Your task to perform on an android device: turn off data saver in the chrome app Image 0: 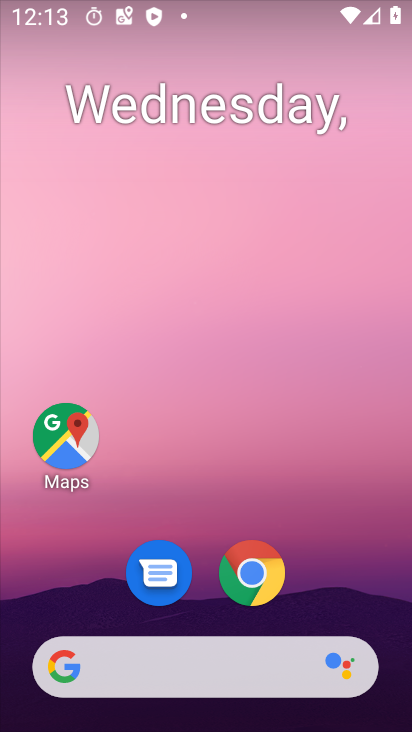
Step 0: drag from (195, 243) to (133, 69)
Your task to perform on an android device: turn off data saver in the chrome app Image 1: 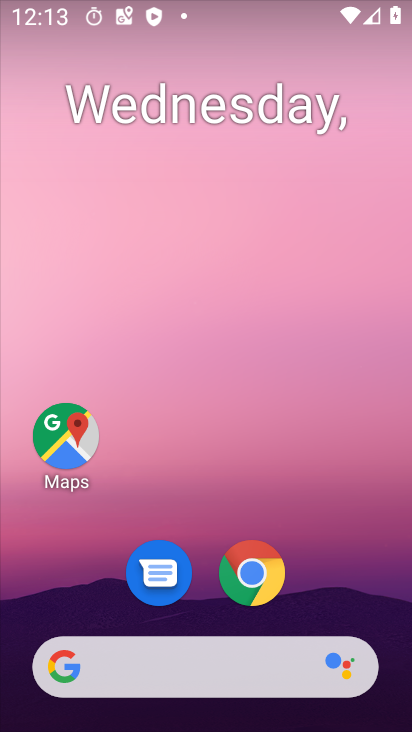
Step 1: drag from (314, 547) to (129, 70)
Your task to perform on an android device: turn off data saver in the chrome app Image 2: 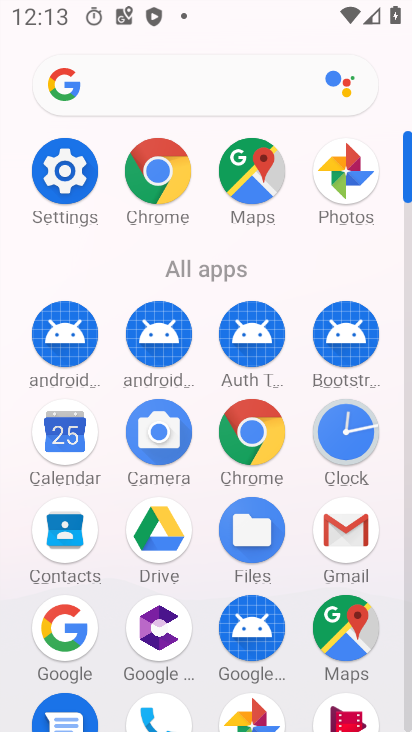
Step 2: click (157, 169)
Your task to perform on an android device: turn off data saver in the chrome app Image 3: 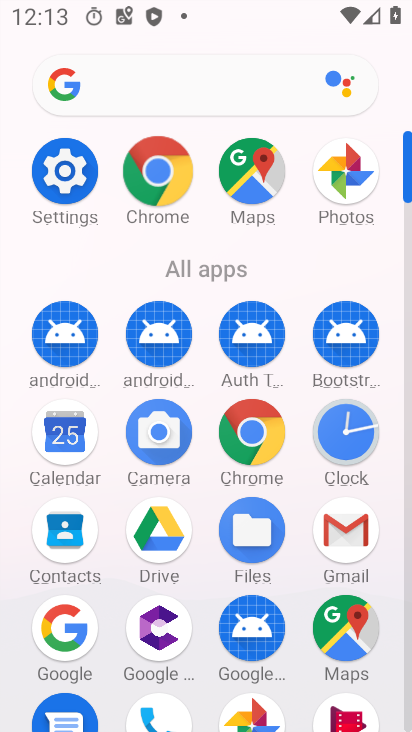
Step 3: click (159, 166)
Your task to perform on an android device: turn off data saver in the chrome app Image 4: 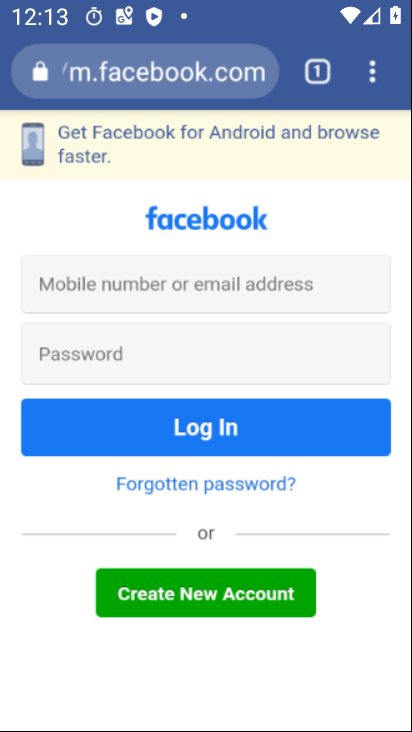
Step 4: click (162, 162)
Your task to perform on an android device: turn off data saver in the chrome app Image 5: 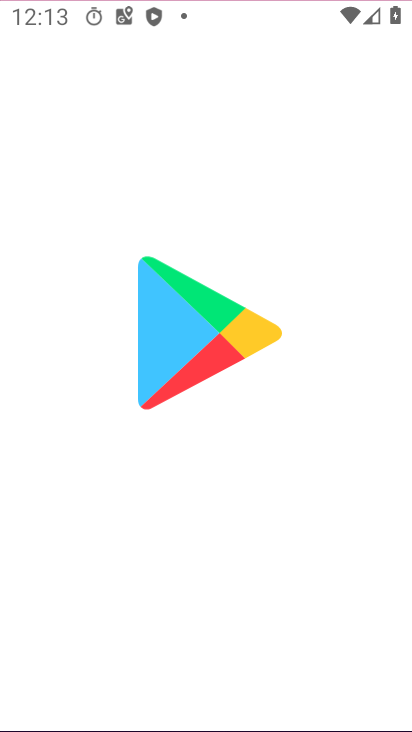
Step 5: press back button
Your task to perform on an android device: turn off data saver in the chrome app Image 6: 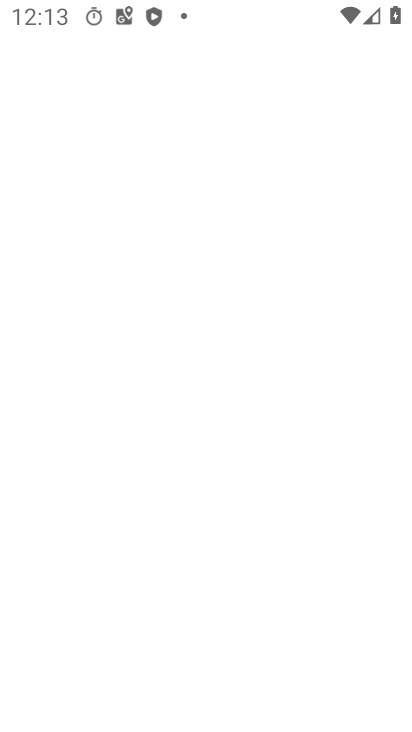
Step 6: press home button
Your task to perform on an android device: turn off data saver in the chrome app Image 7: 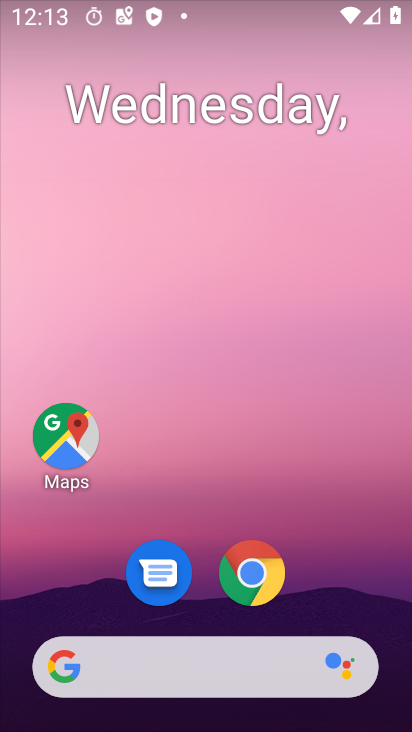
Step 7: drag from (378, 590) to (202, 10)
Your task to perform on an android device: turn off data saver in the chrome app Image 8: 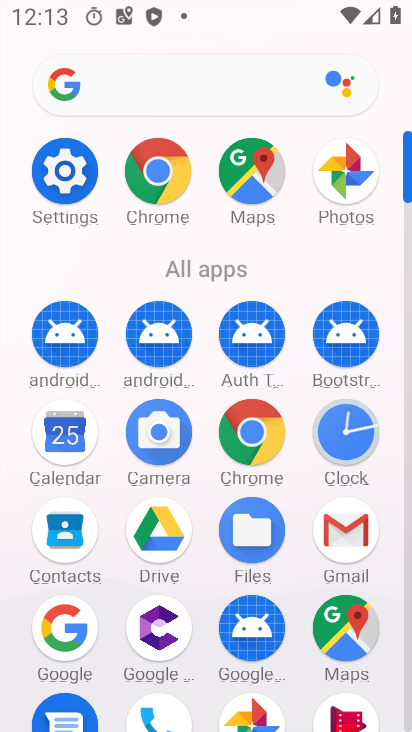
Step 8: click (149, 172)
Your task to perform on an android device: turn off data saver in the chrome app Image 9: 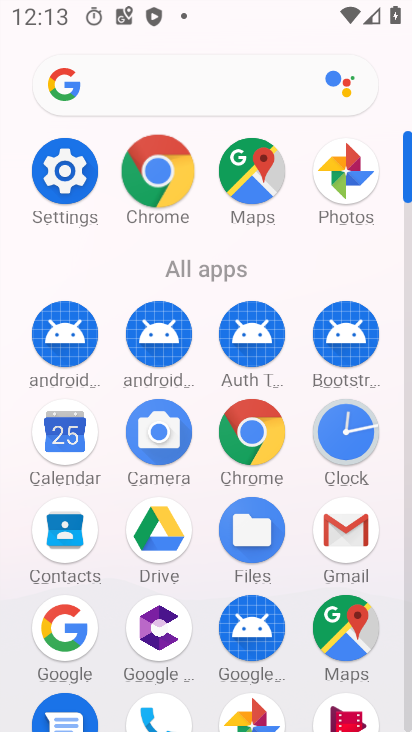
Step 9: click (149, 172)
Your task to perform on an android device: turn off data saver in the chrome app Image 10: 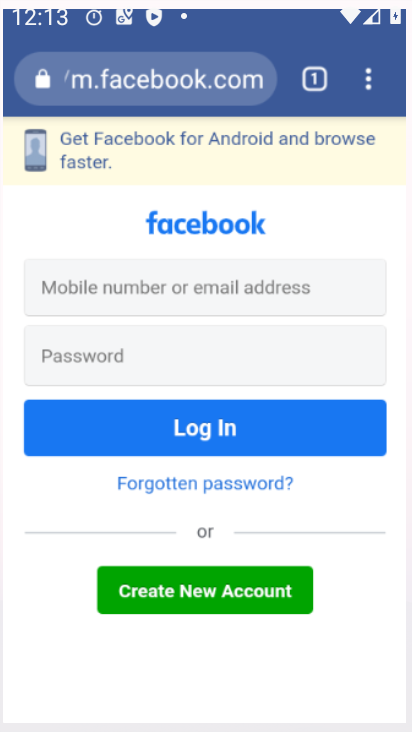
Step 10: click (149, 171)
Your task to perform on an android device: turn off data saver in the chrome app Image 11: 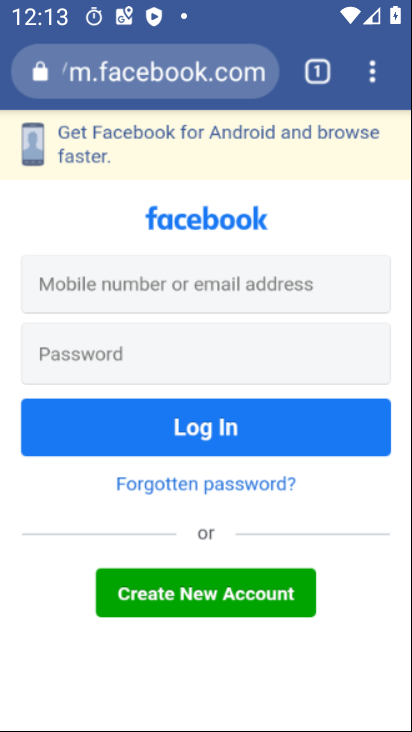
Step 11: click (153, 166)
Your task to perform on an android device: turn off data saver in the chrome app Image 12: 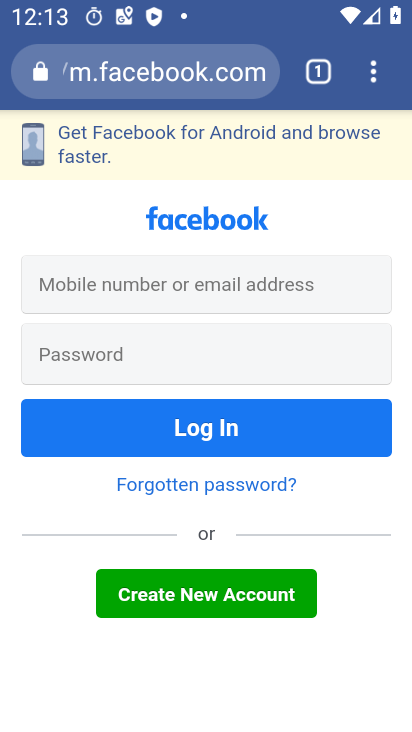
Step 12: click (366, 79)
Your task to perform on an android device: turn off data saver in the chrome app Image 13: 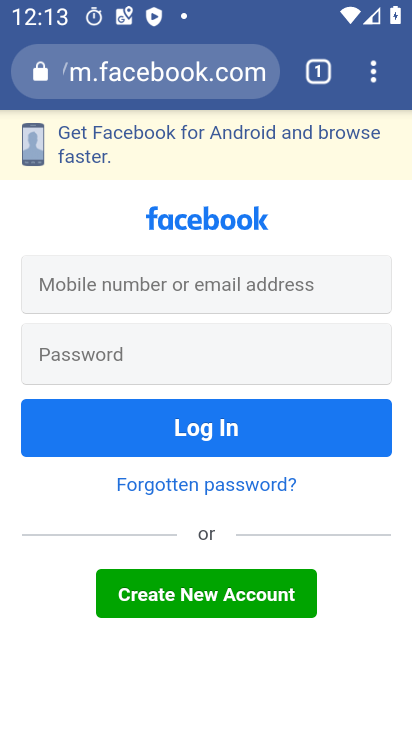
Step 13: drag from (378, 73) to (126, 573)
Your task to perform on an android device: turn off data saver in the chrome app Image 14: 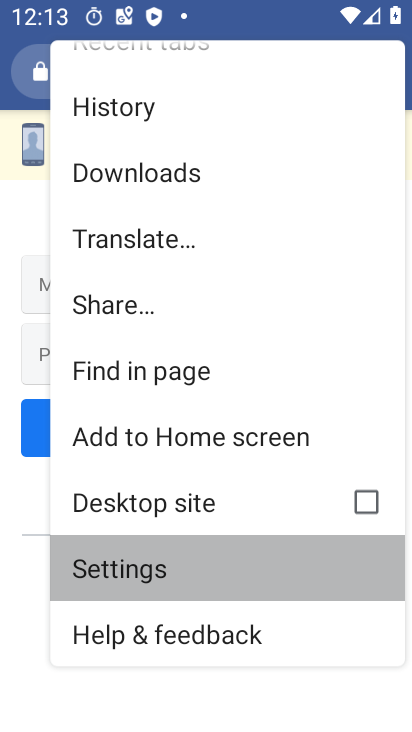
Step 14: click (126, 573)
Your task to perform on an android device: turn off data saver in the chrome app Image 15: 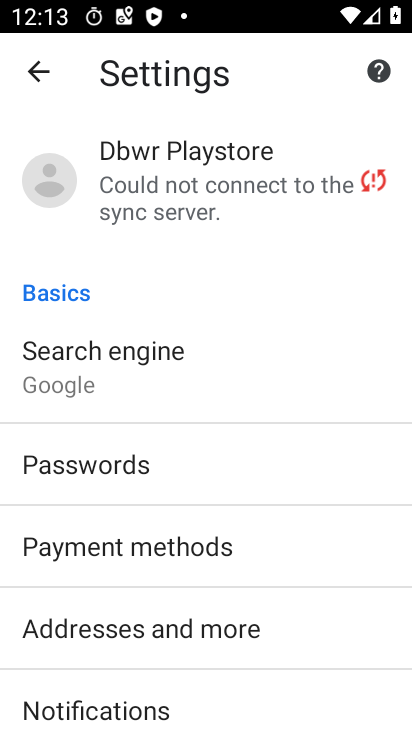
Step 15: drag from (112, 507) to (182, 201)
Your task to perform on an android device: turn off data saver in the chrome app Image 16: 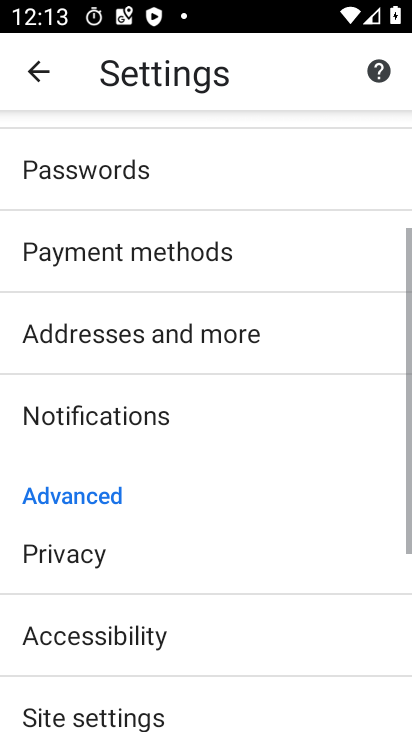
Step 16: drag from (125, 562) to (193, 243)
Your task to perform on an android device: turn off data saver in the chrome app Image 17: 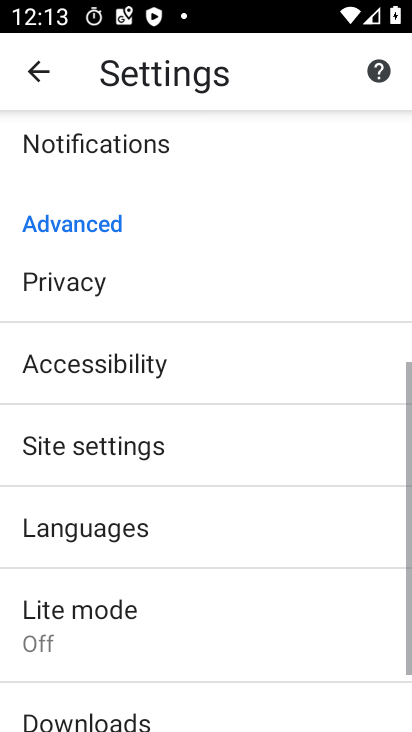
Step 17: drag from (230, 419) to (272, 124)
Your task to perform on an android device: turn off data saver in the chrome app Image 18: 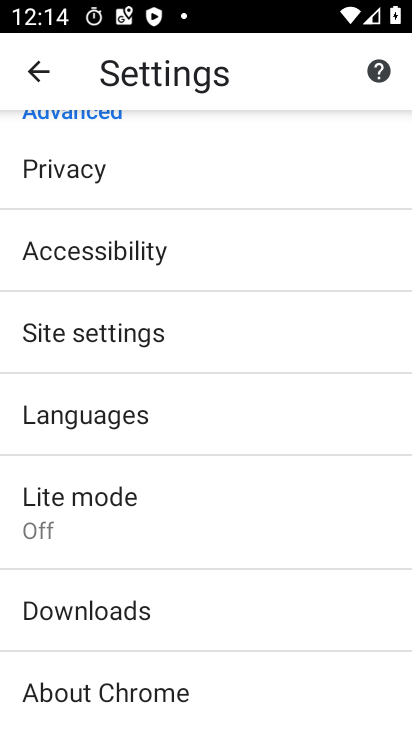
Step 18: click (57, 495)
Your task to perform on an android device: turn off data saver in the chrome app Image 19: 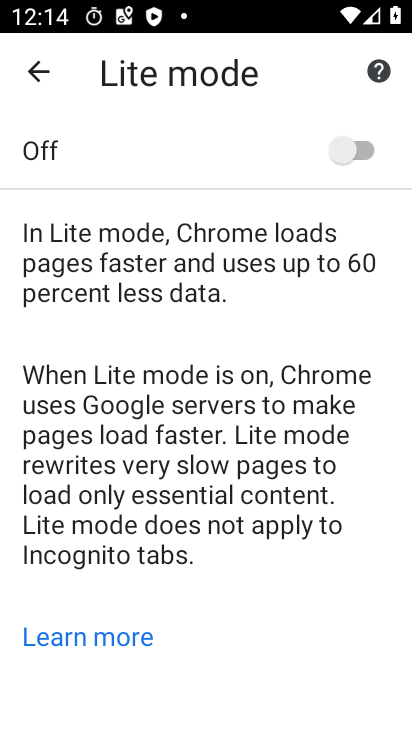
Step 19: task complete